Your task to perform on an android device: Open calendar and show me the fourth week of next month Image 0: 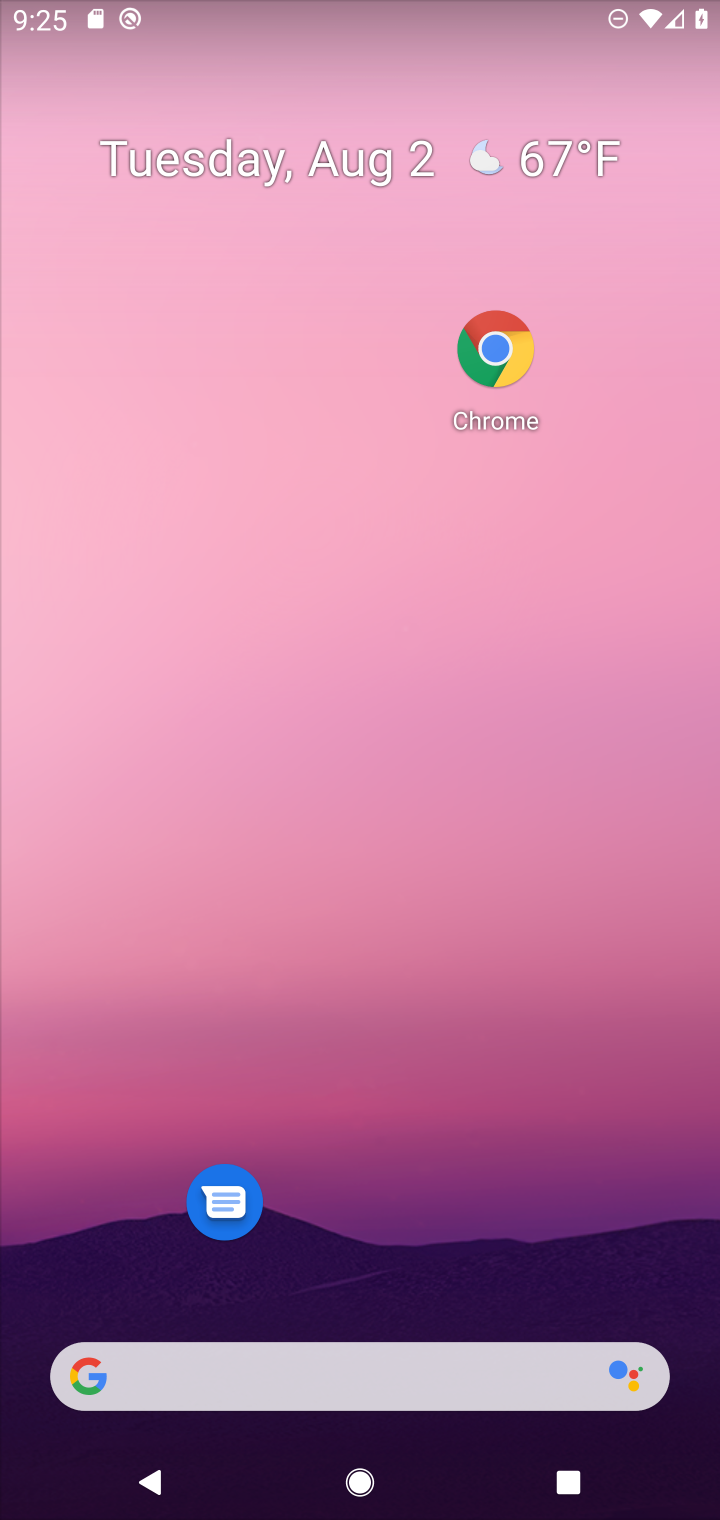
Step 0: drag from (418, 1288) to (394, 68)
Your task to perform on an android device: Open calendar and show me the fourth week of next month Image 1: 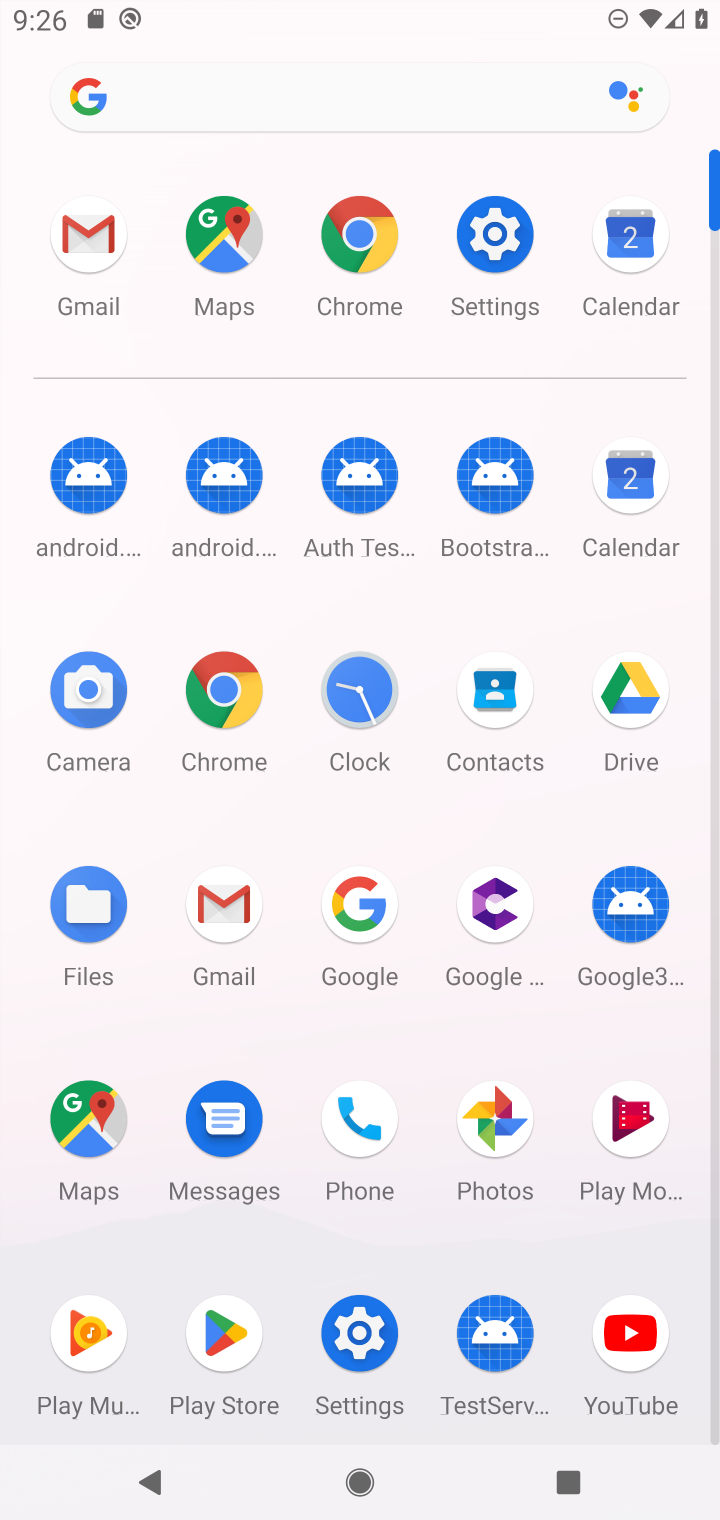
Step 1: click (615, 251)
Your task to perform on an android device: Open calendar and show me the fourth week of next month Image 2: 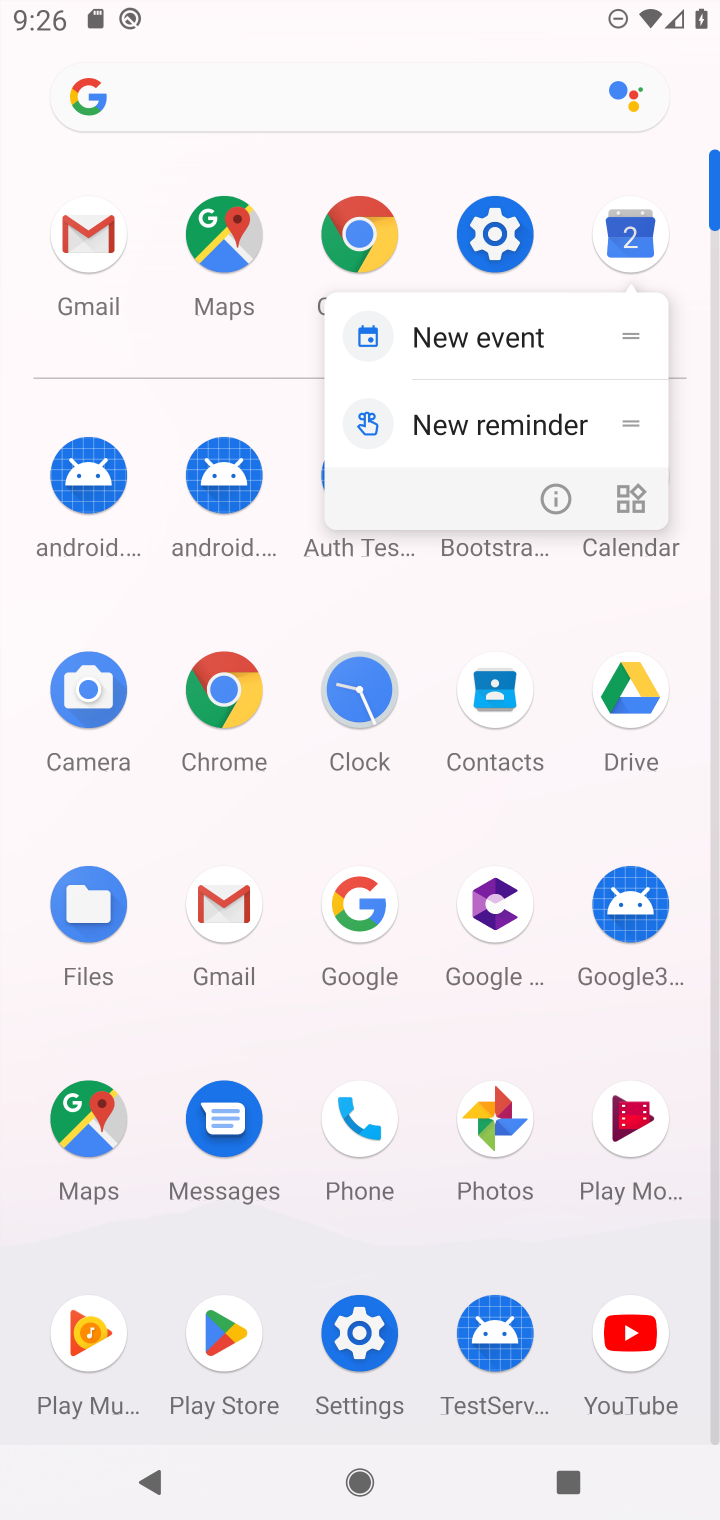
Step 2: click (626, 240)
Your task to perform on an android device: Open calendar and show me the fourth week of next month Image 3: 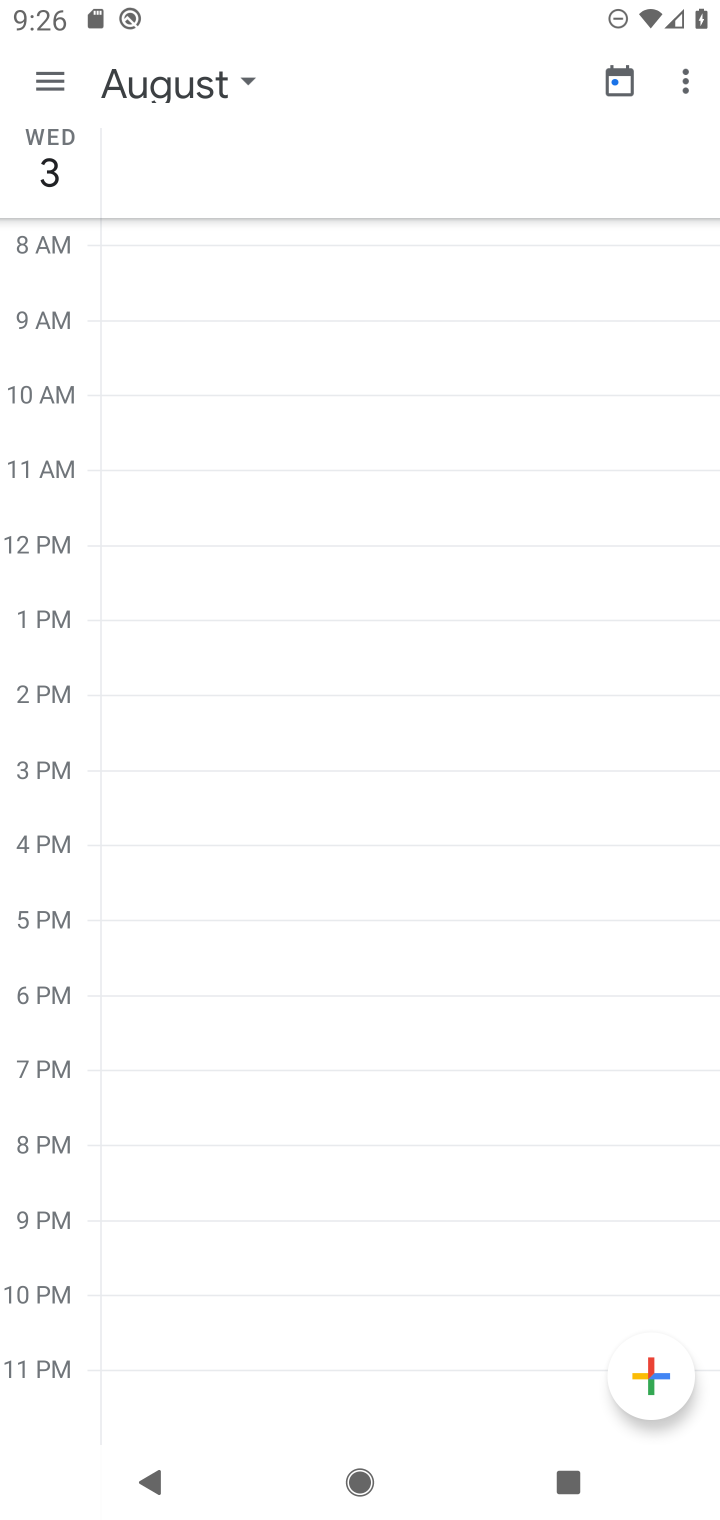
Step 3: click (625, 84)
Your task to perform on an android device: Open calendar and show me the fourth week of next month Image 4: 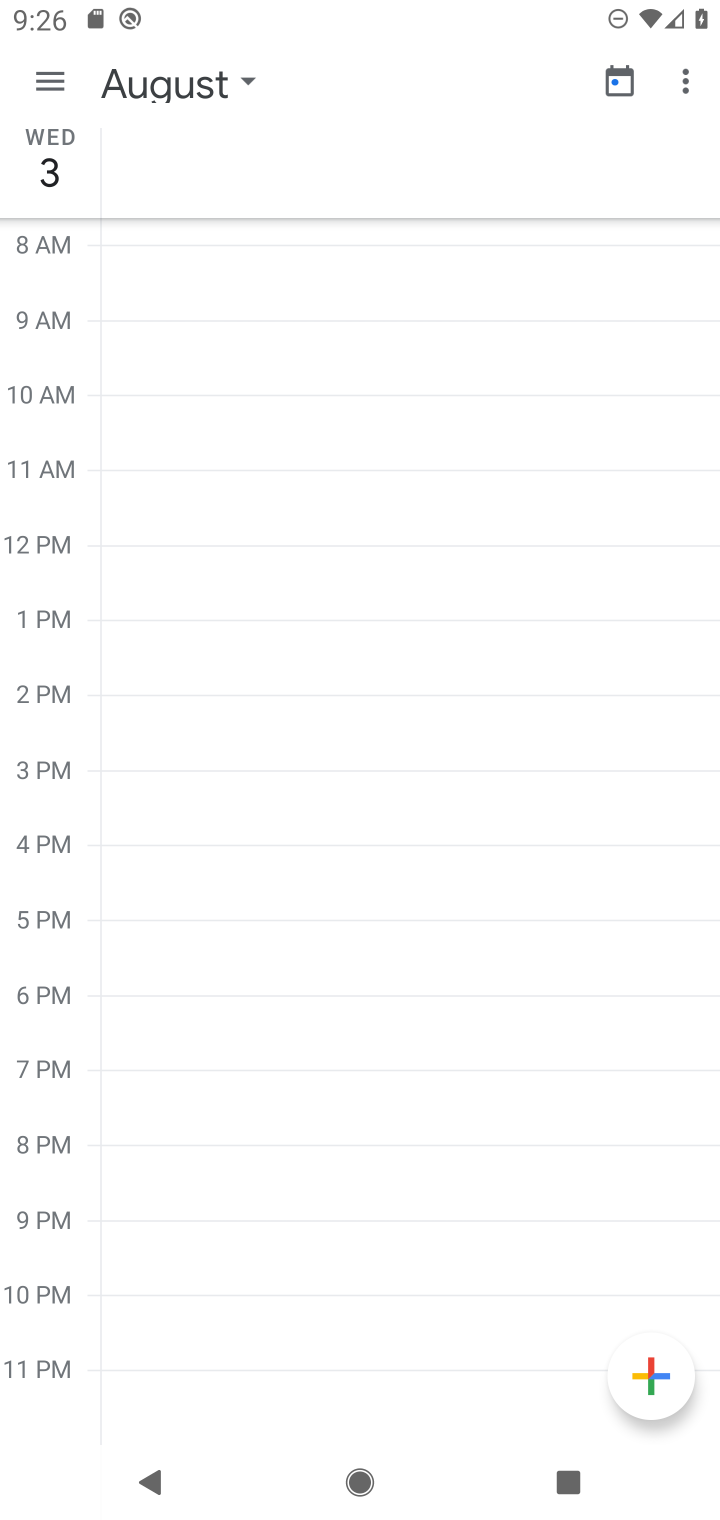
Step 4: click (625, 82)
Your task to perform on an android device: Open calendar and show me the fourth week of next month Image 5: 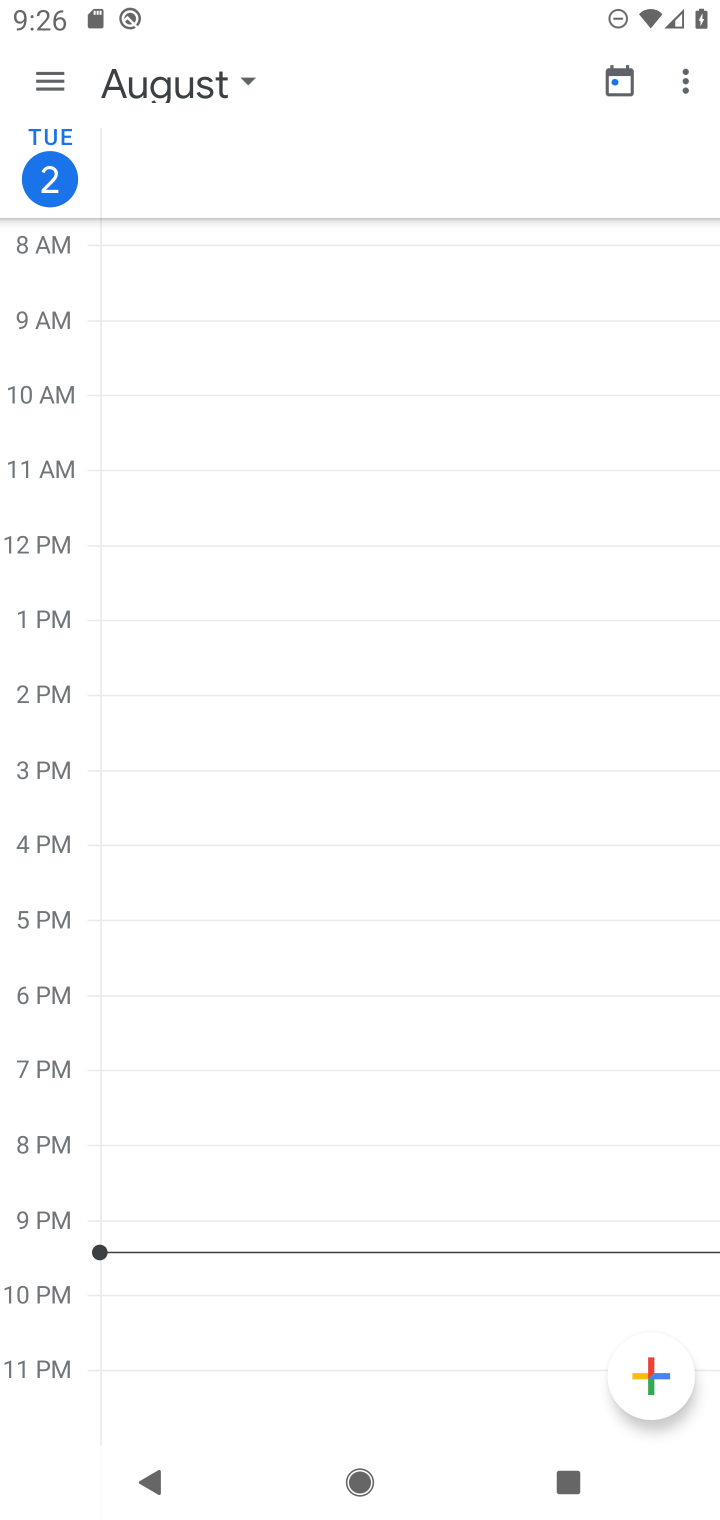
Step 5: click (625, 82)
Your task to perform on an android device: Open calendar and show me the fourth week of next month Image 6: 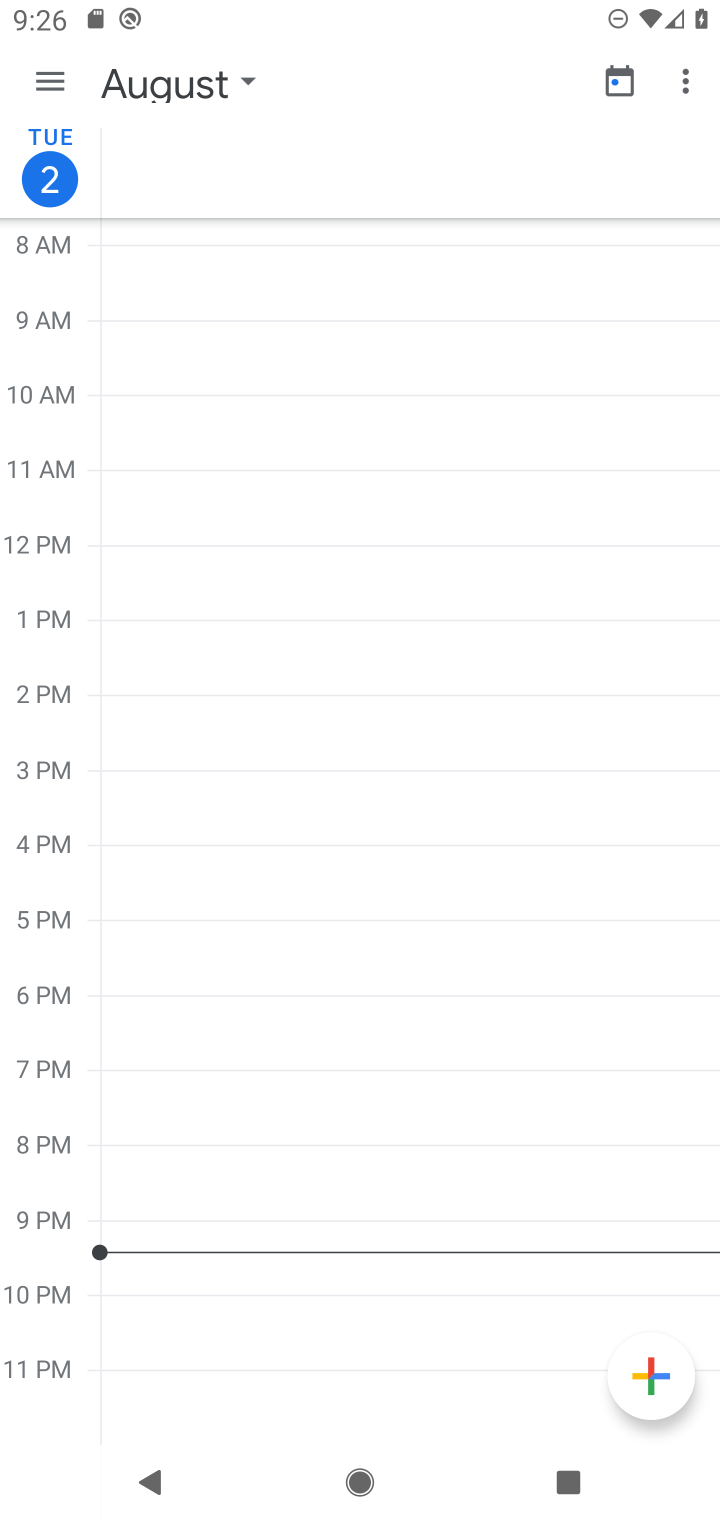
Step 6: click (44, 79)
Your task to perform on an android device: Open calendar and show me the fourth week of next month Image 7: 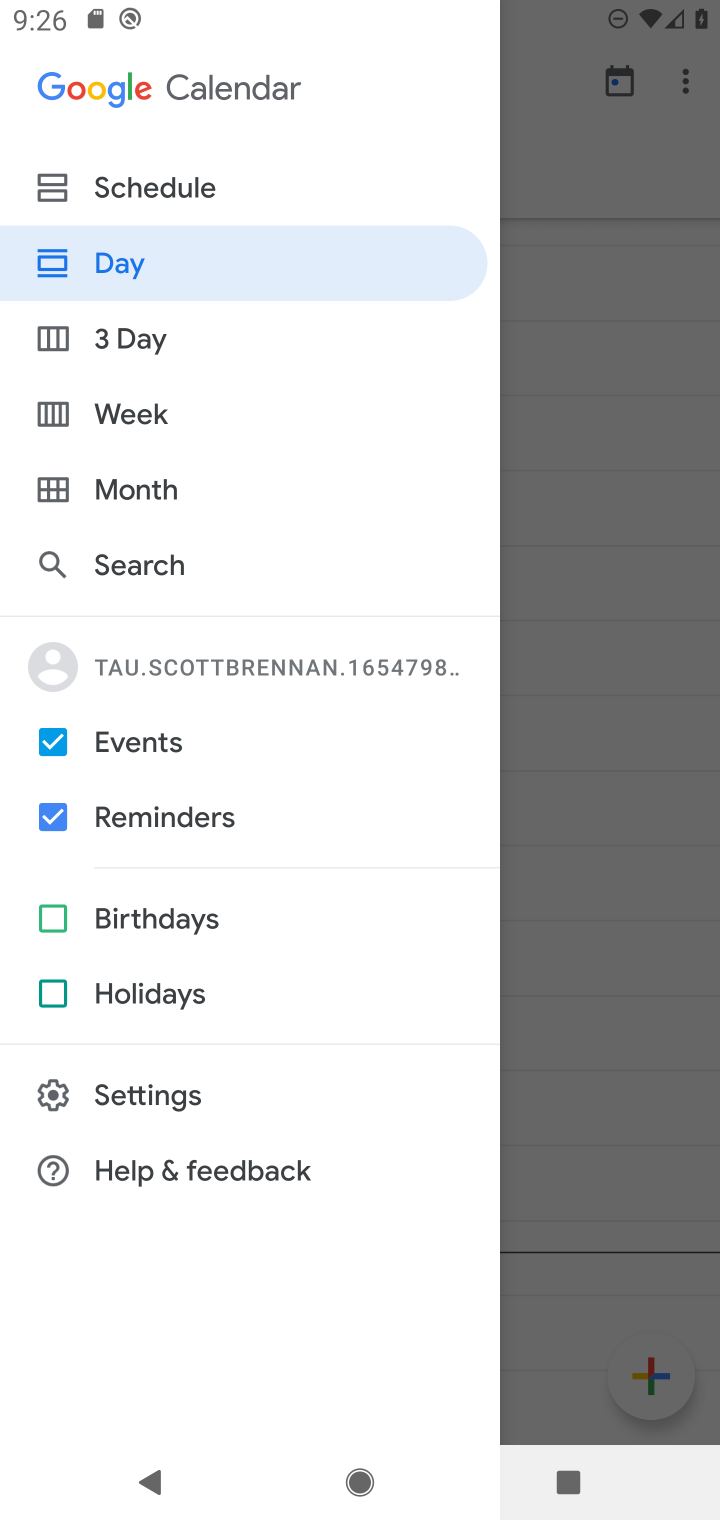
Step 7: click (250, 80)
Your task to perform on an android device: Open calendar and show me the fourth week of next month Image 8: 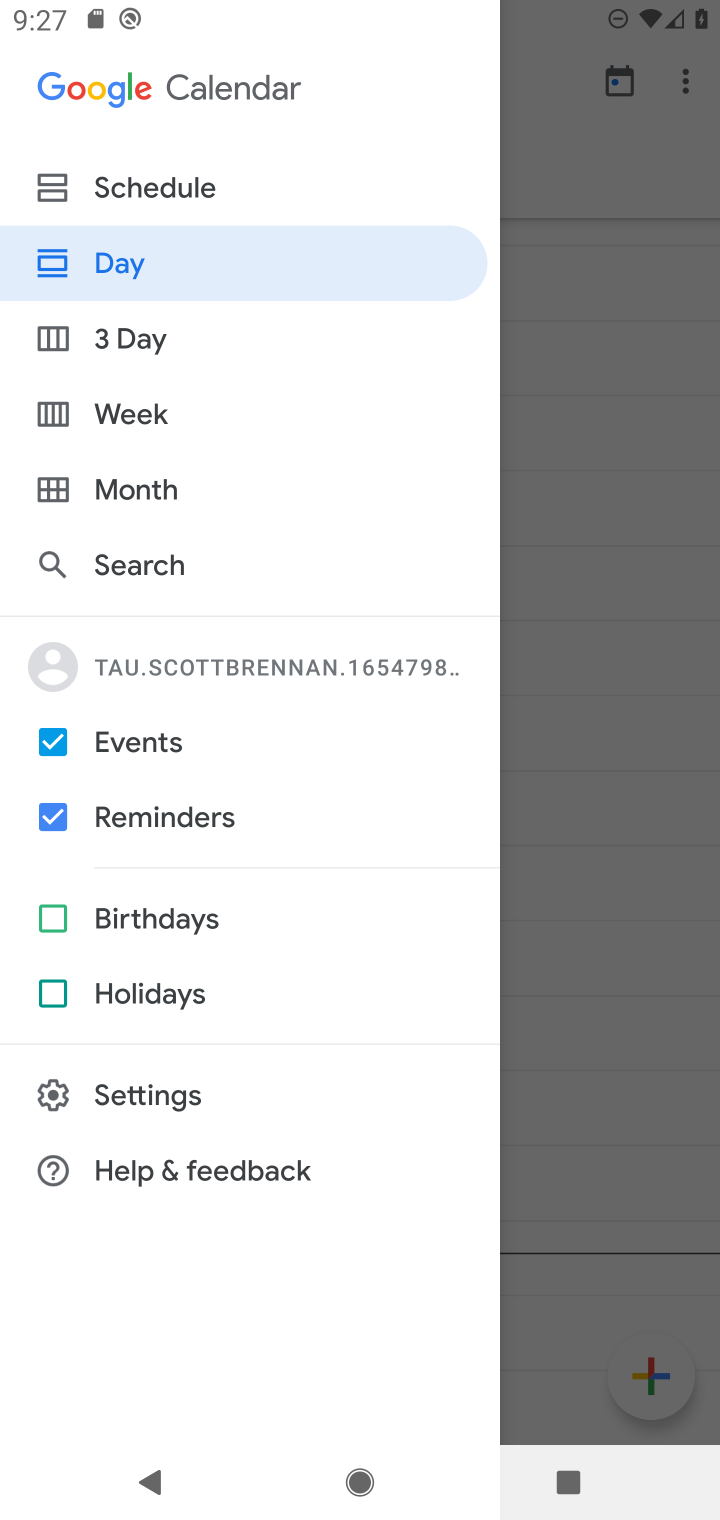
Step 8: click (120, 418)
Your task to perform on an android device: Open calendar and show me the fourth week of next month Image 9: 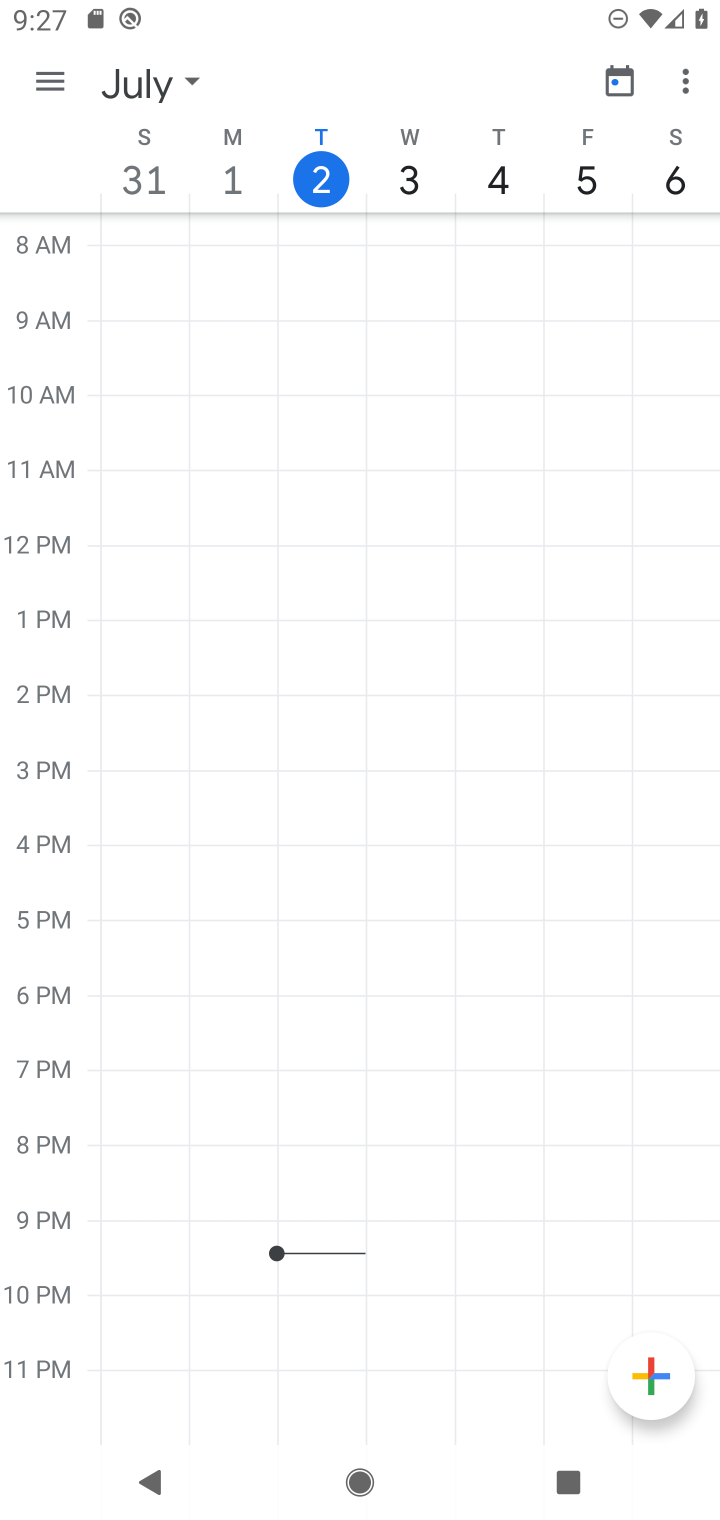
Step 9: click (199, 86)
Your task to perform on an android device: Open calendar and show me the fourth week of next month Image 10: 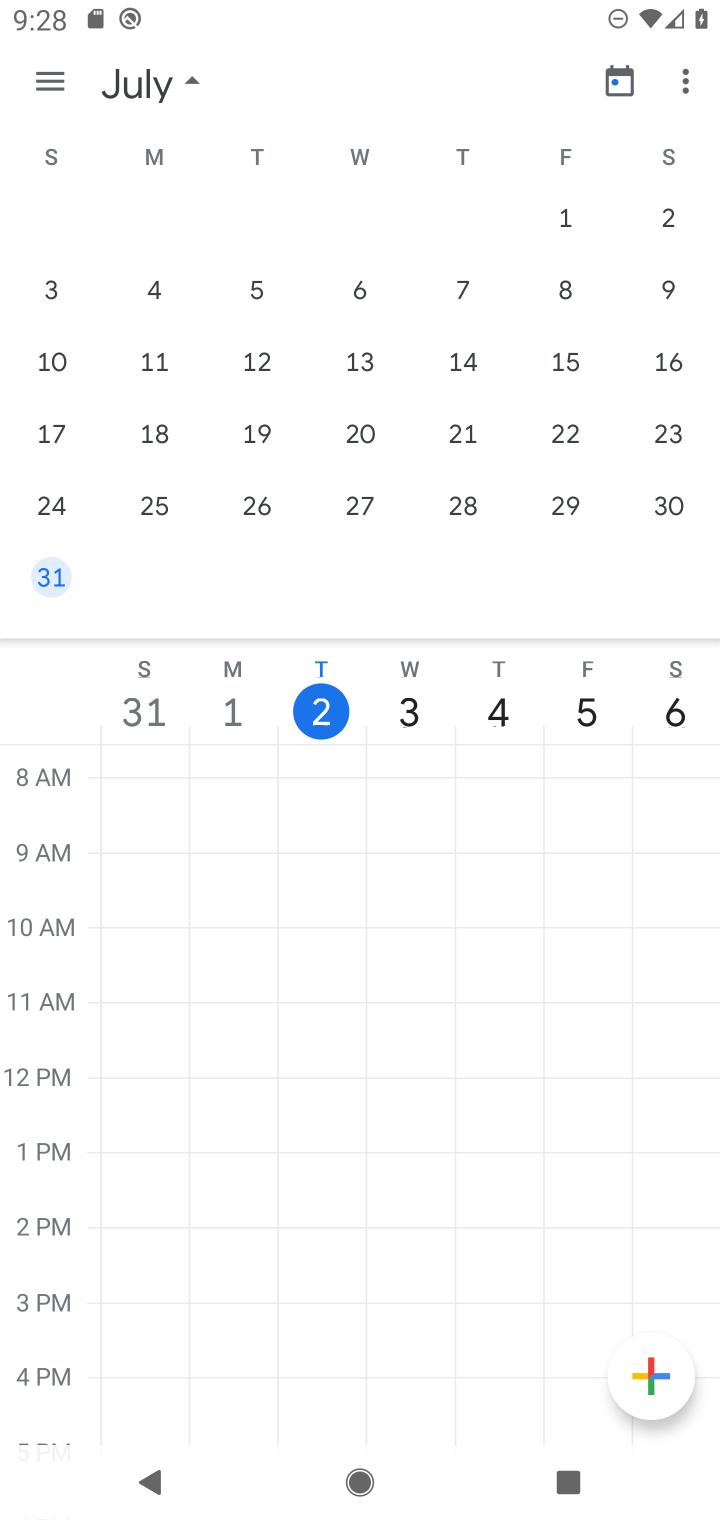
Step 10: click (57, 83)
Your task to perform on an android device: Open calendar and show me the fourth week of next month Image 11: 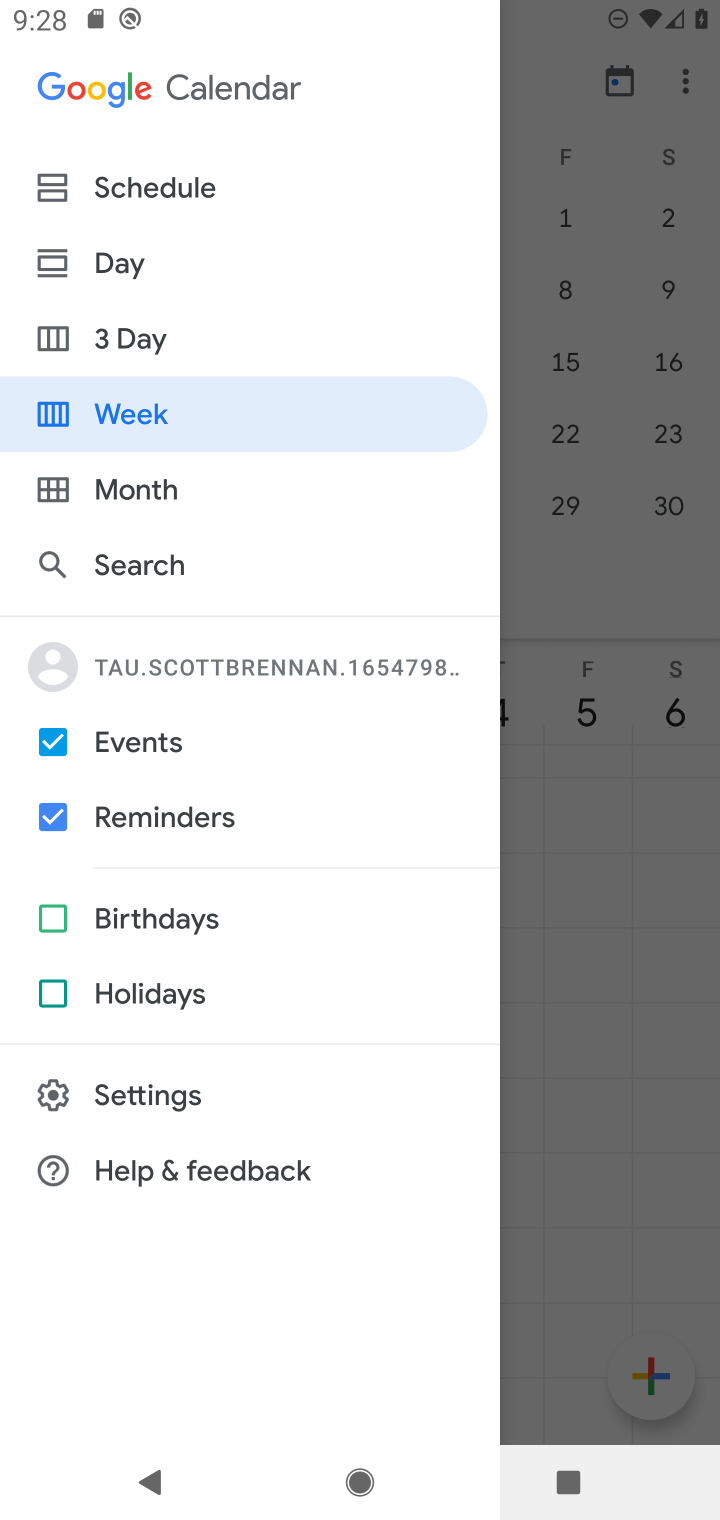
Step 11: click (106, 423)
Your task to perform on an android device: Open calendar and show me the fourth week of next month Image 12: 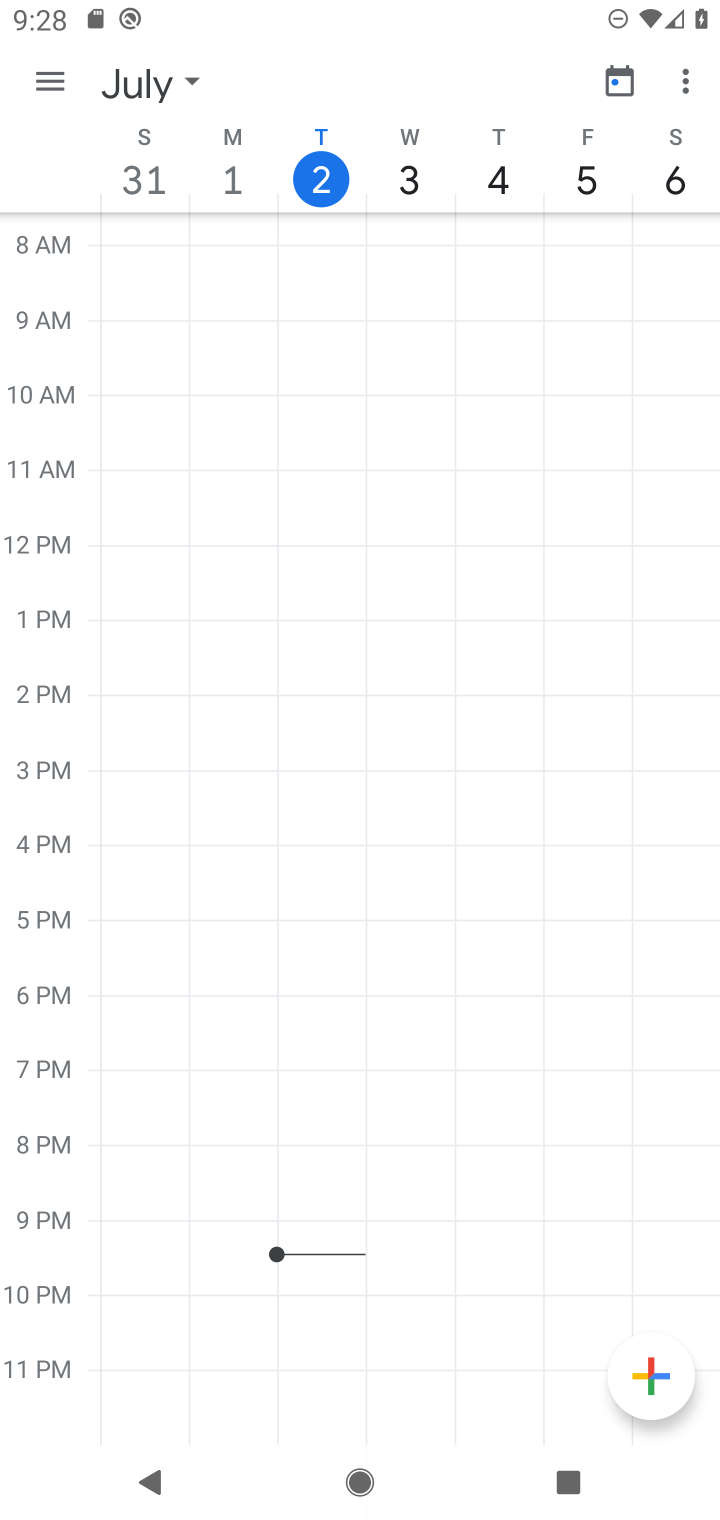
Step 12: task complete